Your task to perform on an android device: open a new tab in the chrome app Image 0: 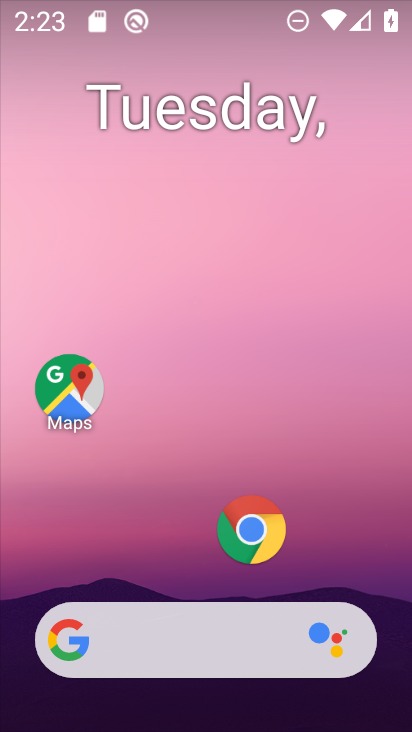
Step 0: press home button
Your task to perform on an android device: open a new tab in the chrome app Image 1: 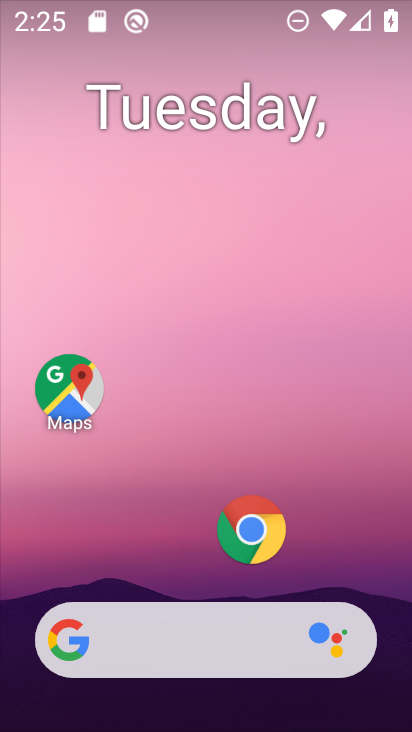
Step 1: drag from (240, 681) to (248, 287)
Your task to perform on an android device: open a new tab in the chrome app Image 2: 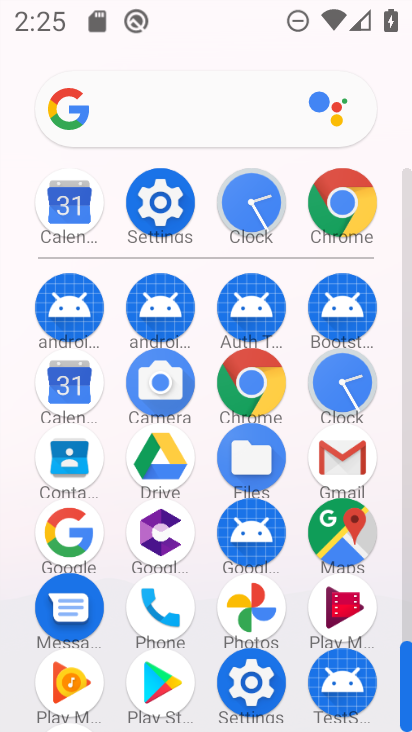
Step 2: click (353, 191)
Your task to perform on an android device: open a new tab in the chrome app Image 3: 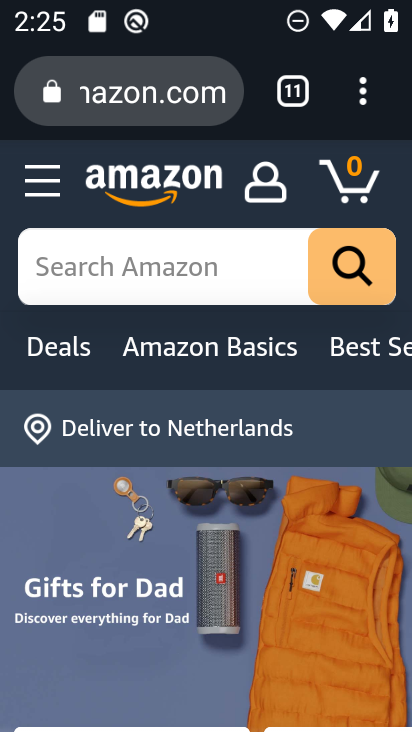
Step 3: click (364, 98)
Your task to perform on an android device: open a new tab in the chrome app Image 4: 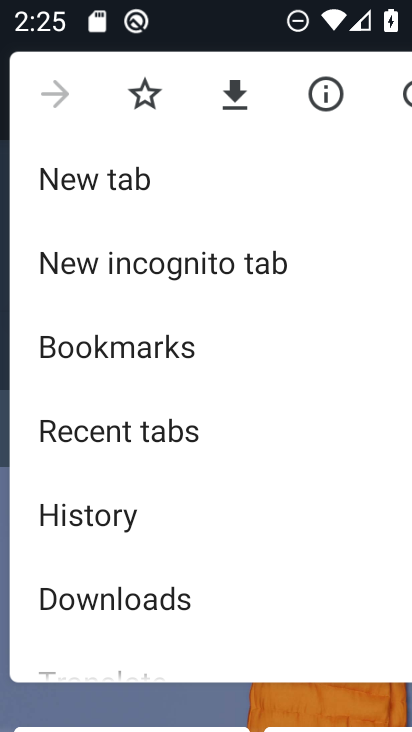
Step 4: click (148, 180)
Your task to perform on an android device: open a new tab in the chrome app Image 5: 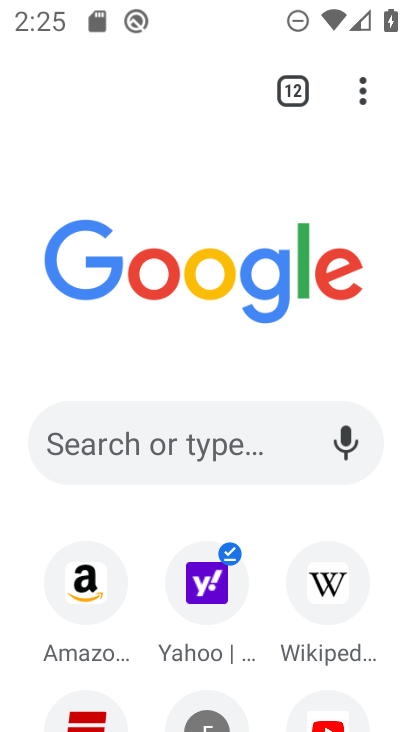
Step 5: task complete